Your task to perform on an android device: Open the stopwatch Image 0: 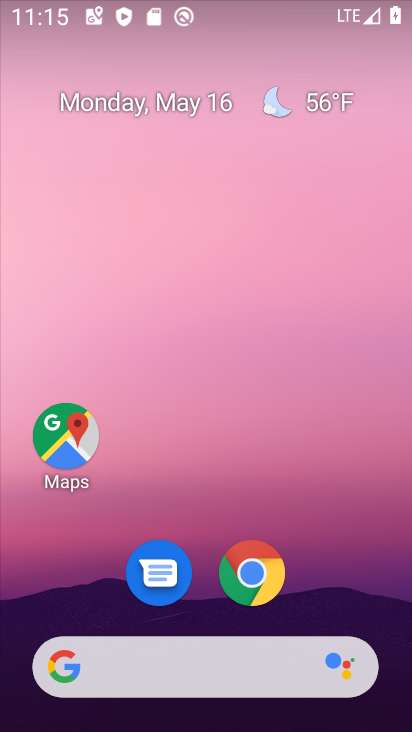
Step 0: drag from (177, 715) to (240, 56)
Your task to perform on an android device: Open the stopwatch Image 1: 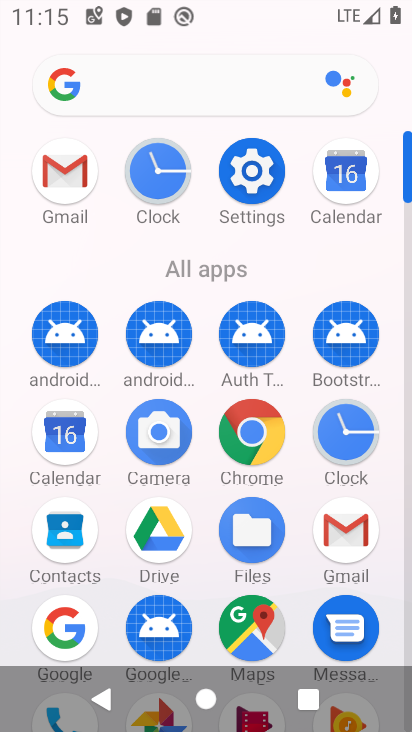
Step 1: click (163, 180)
Your task to perform on an android device: Open the stopwatch Image 2: 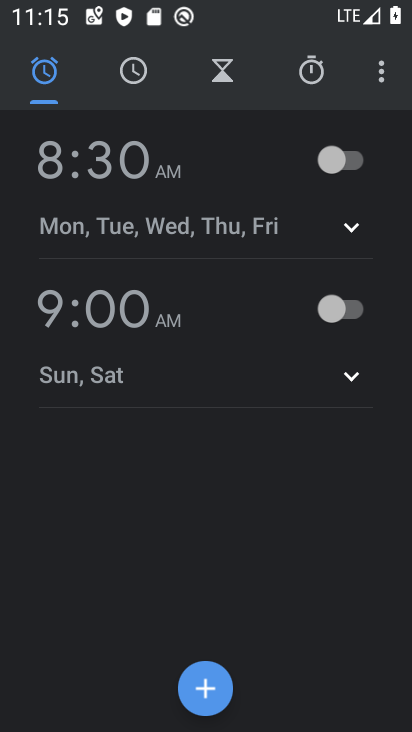
Step 2: click (307, 77)
Your task to perform on an android device: Open the stopwatch Image 3: 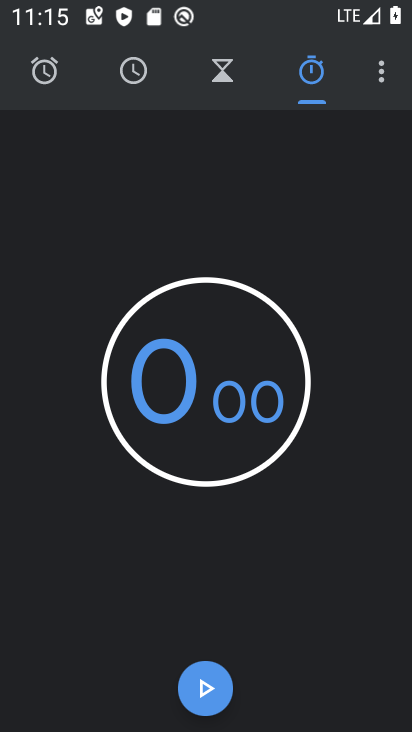
Step 3: task complete